Your task to perform on an android device: set an alarm Image 0: 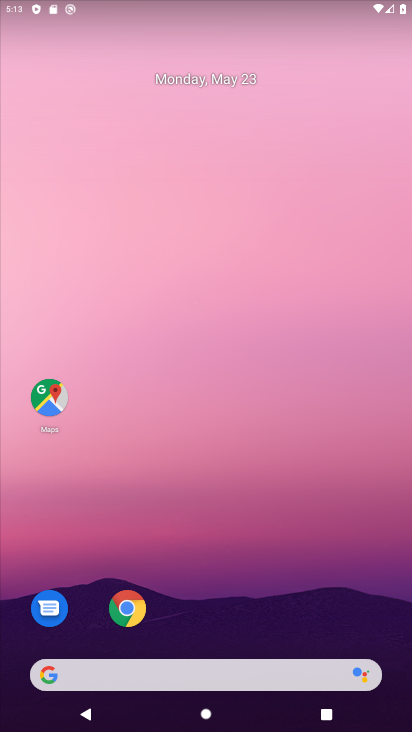
Step 0: drag from (208, 637) to (202, 143)
Your task to perform on an android device: set an alarm Image 1: 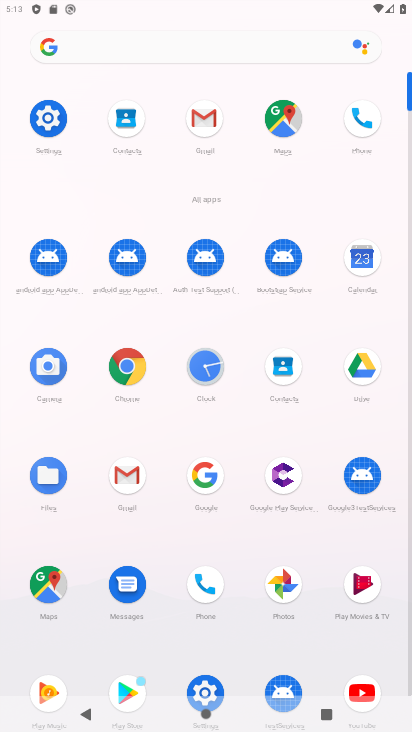
Step 1: click (200, 375)
Your task to perform on an android device: set an alarm Image 2: 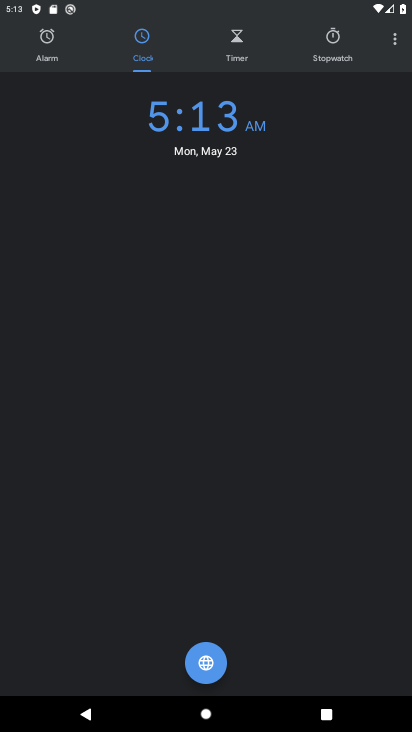
Step 2: click (41, 49)
Your task to perform on an android device: set an alarm Image 3: 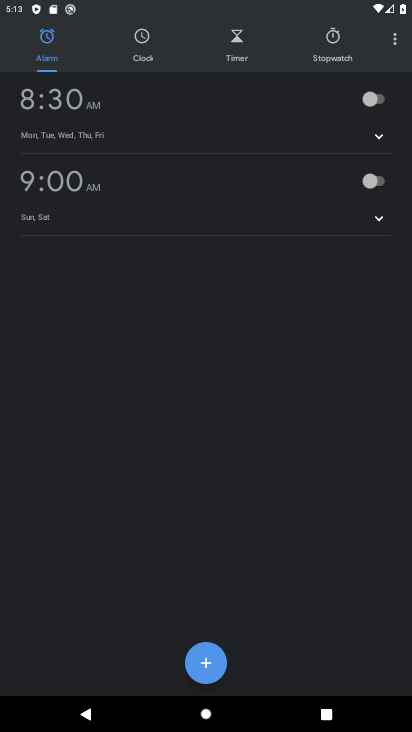
Step 3: click (385, 98)
Your task to perform on an android device: set an alarm Image 4: 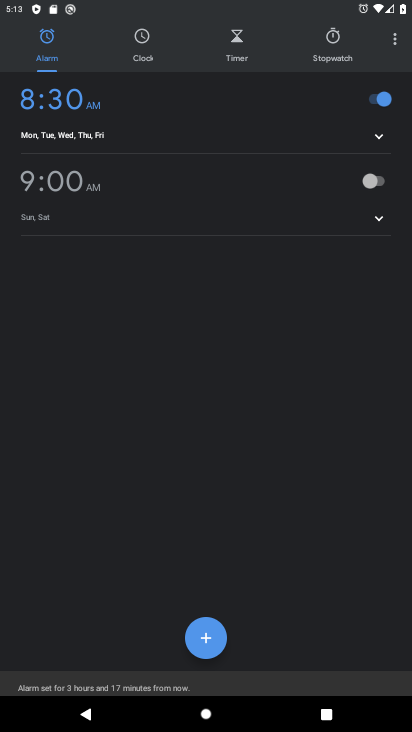
Step 4: task complete